Your task to perform on an android device: Open CNN.com Image 0: 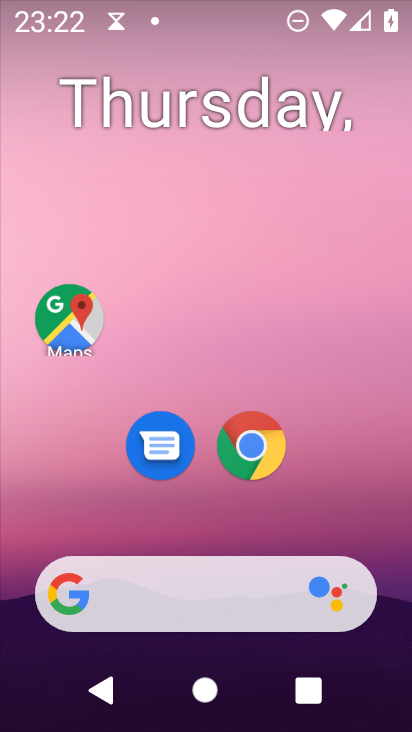
Step 0: click (246, 438)
Your task to perform on an android device: Open CNN.com Image 1: 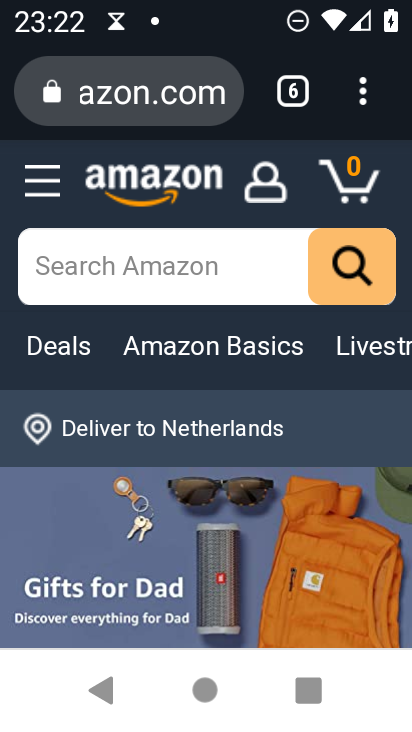
Step 1: click (364, 100)
Your task to perform on an android device: Open CNN.com Image 2: 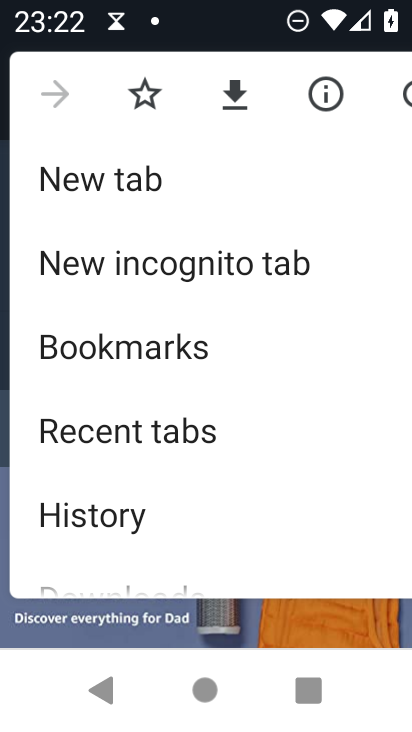
Step 2: click (132, 181)
Your task to perform on an android device: Open CNN.com Image 3: 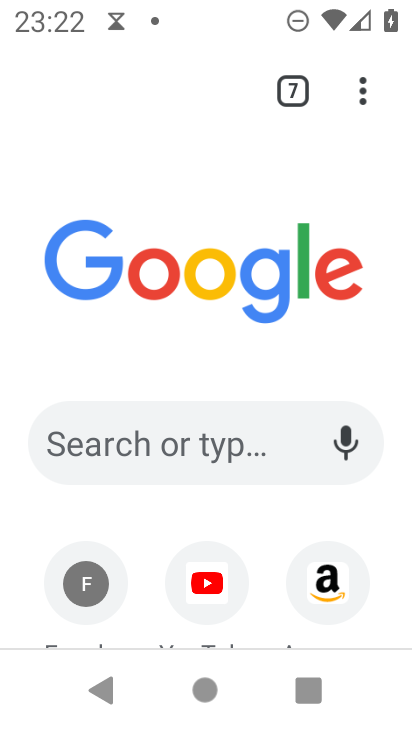
Step 3: click (152, 441)
Your task to perform on an android device: Open CNN.com Image 4: 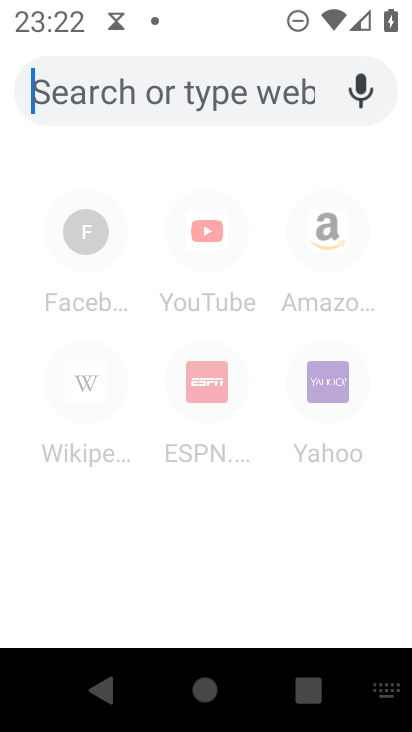
Step 4: type "CNN.com"
Your task to perform on an android device: Open CNN.com Image 5: 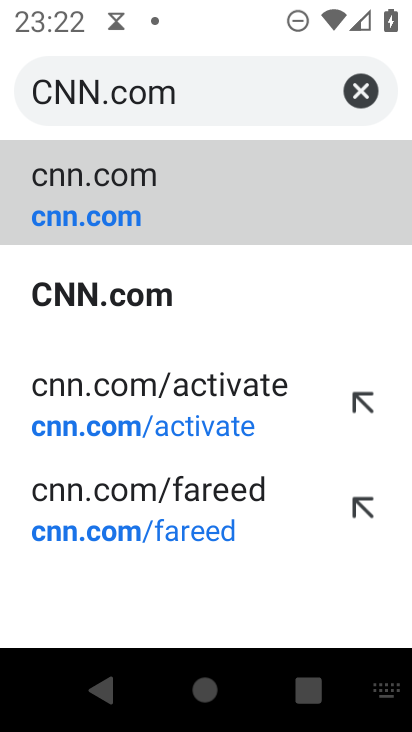
Step 5: click (105, 185)
Your task to perform on an android device: Open CNN.com Image 6: 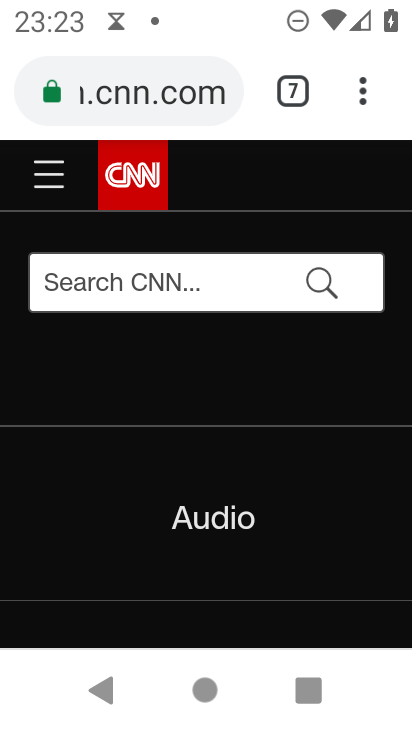
Step 6: task complete